Your task to perform on an android device: show emergency info Image 0: 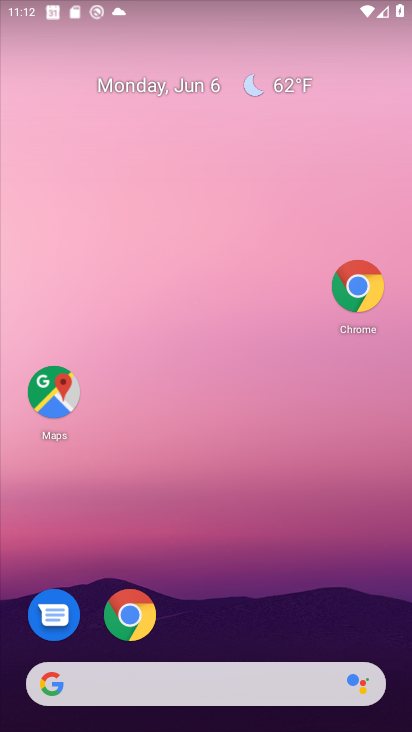
Step 0: drag from (274, 717) to (150, 61)
Your task to perform on an android device: show emergency info Image 1: 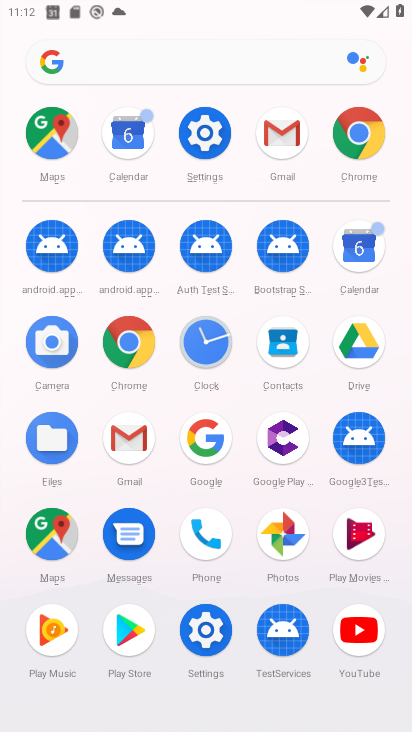
Step 1: click (217, 138)
Your task to perform on an android device: show emergency info Image 2: 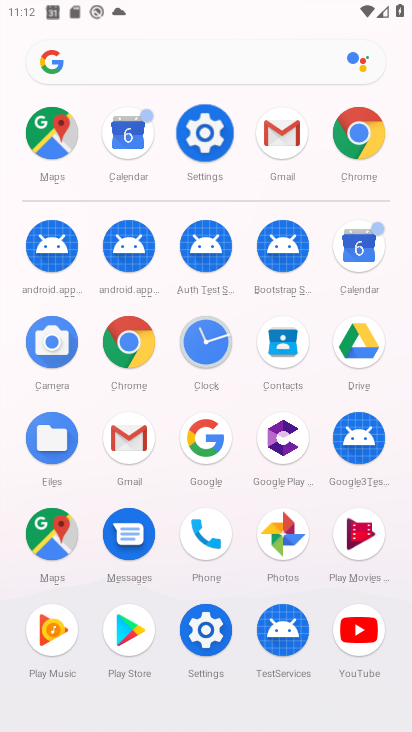
Step 2: click (217, 138)
Your task to perform on an android device: show emergency info Image 3: 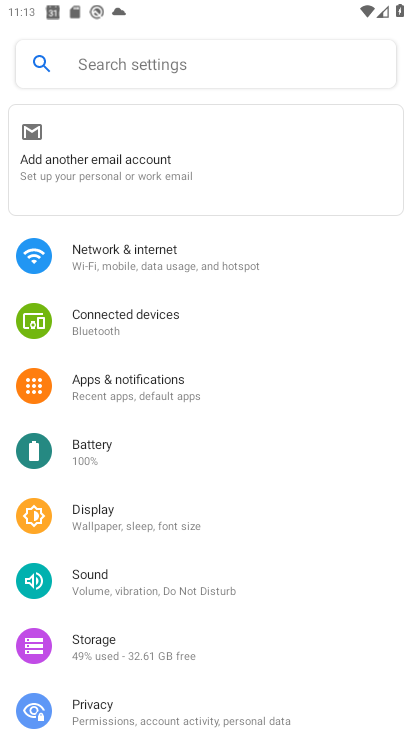
Step 3: drag from (196, 477) to (141, 86)
Your task to perform on an android device: show emergency info Image 4: 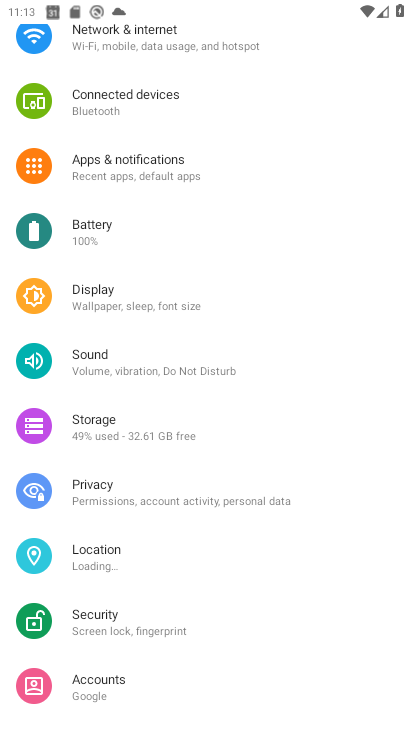
Step 4: drag from (142, 379) to (127, 160)
Your task to perform on an android device: show emergency info Image 5: 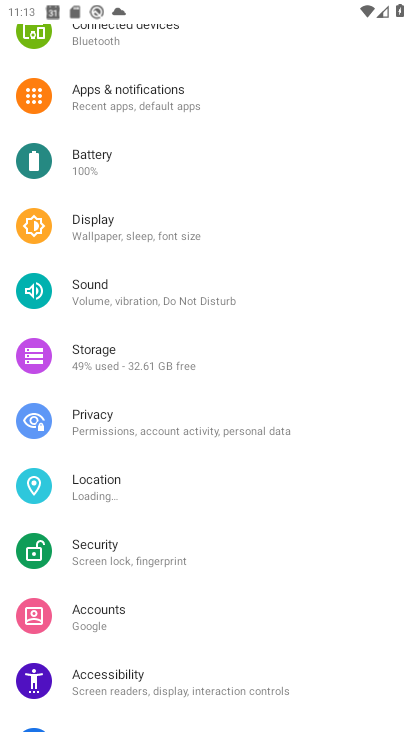
Step 5: drag from (167, 489) to (110, 186)
Your task to perform on an android device: show emergency info Image 6: 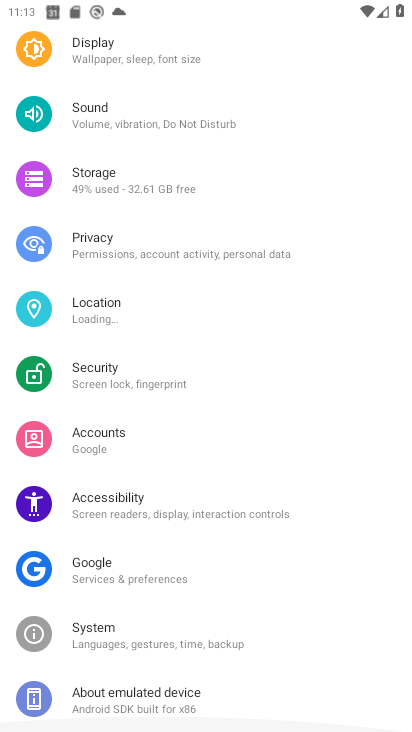
Step 6: drag from (154, 330) to (147, 195)
Your task to perform on an android device: show emergency info Image 7: 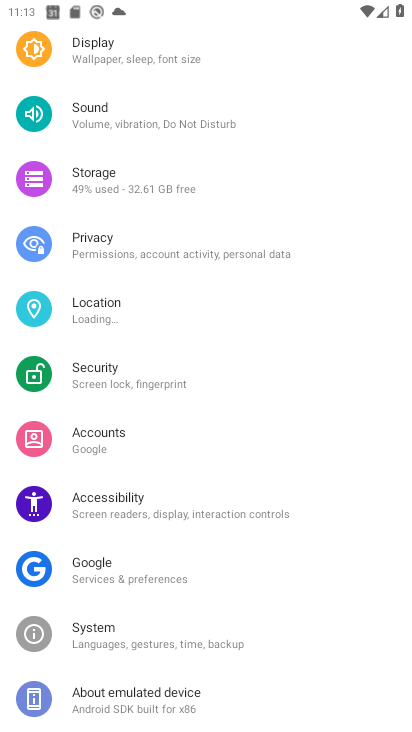
Step 7: drag from (205, 501) to (189, 160)
Your task to perform on an android device: show emergency info Image 8: 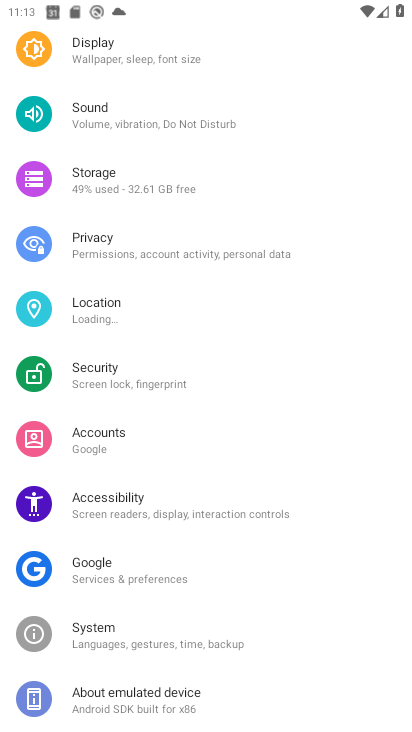
Step 8: drag from (196, 584) to (190, 169)
Your task to perform on an android device: show emergency info Image 9: 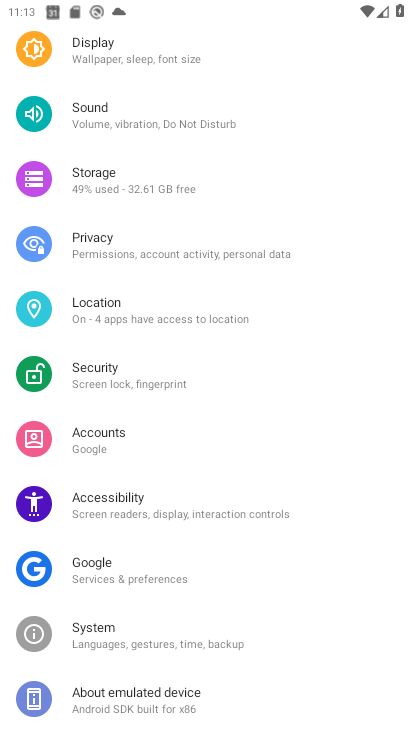
Step 9: click (131, 703)
Your task to perform on an android device: show emergency info Image 10: 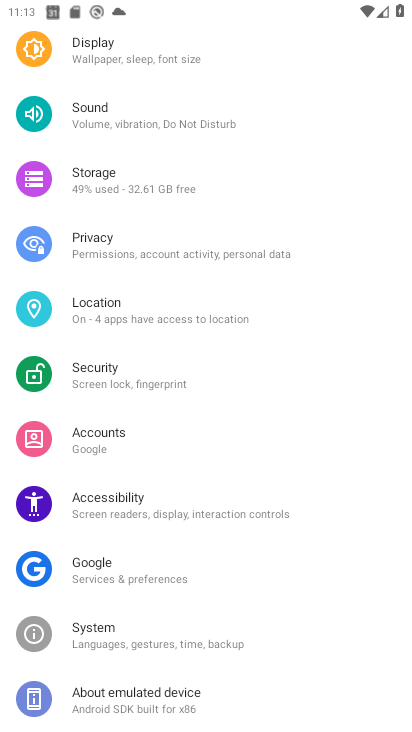
Step 10: click (131, 703)
Your task to perform on an android device: show emergency info Image 11: 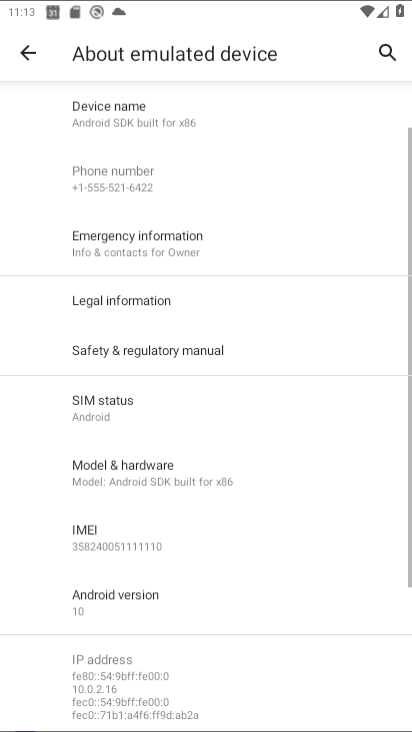
Step 11: click (131, 703)
Your task to perform on an android device: show emergency info Image 12: 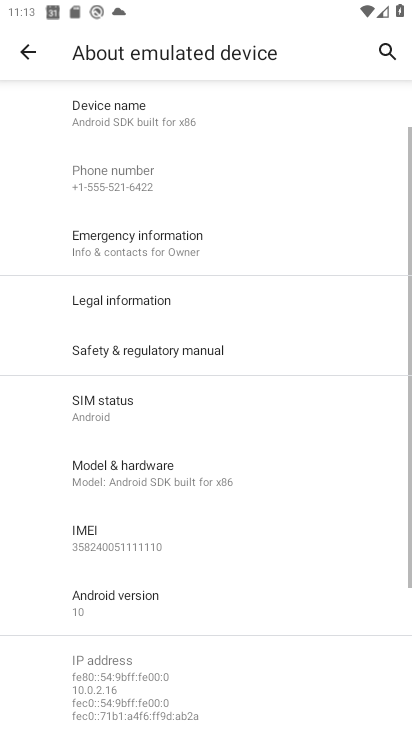
Step 12: click (131, 703)
Your task to perform on an android device: show emergency info Image 13: 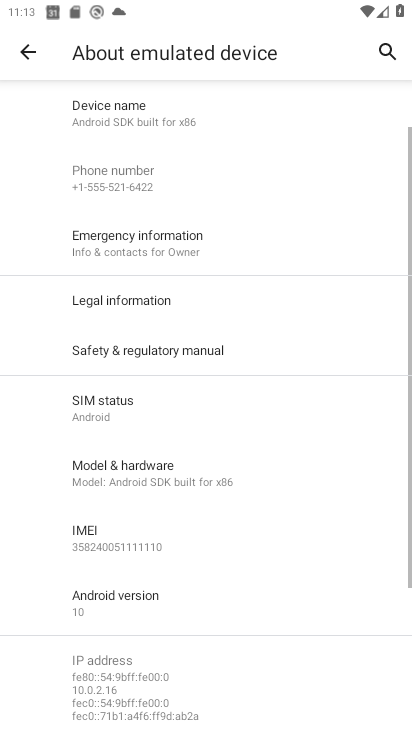
Step 13: click (111, 237)
Your task to perform on an android device: show emergency info Image 14: 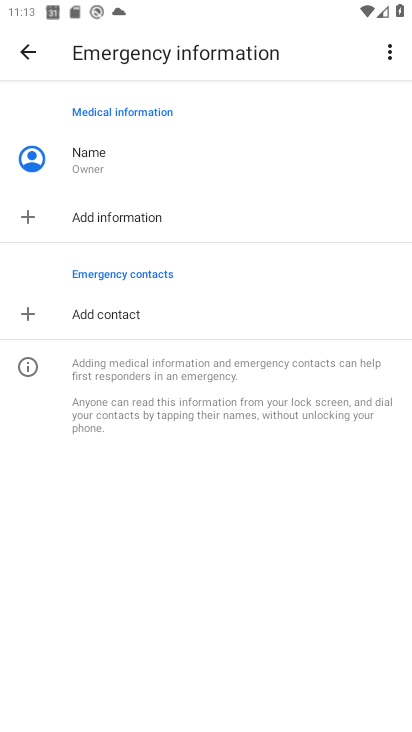
Step 14: task complete